Your task to perform on an android device: Go to ESPN.com Image 0: 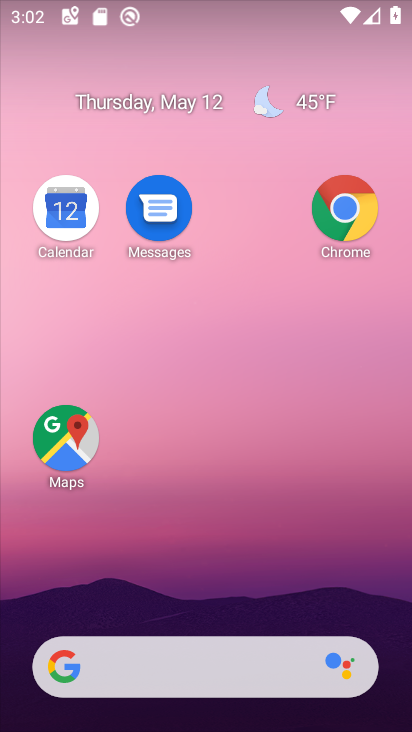
Step 0: drag from (176, 582) to (280, 69)
Your task to perform on an android device: Go to ESPN.com Image 1: 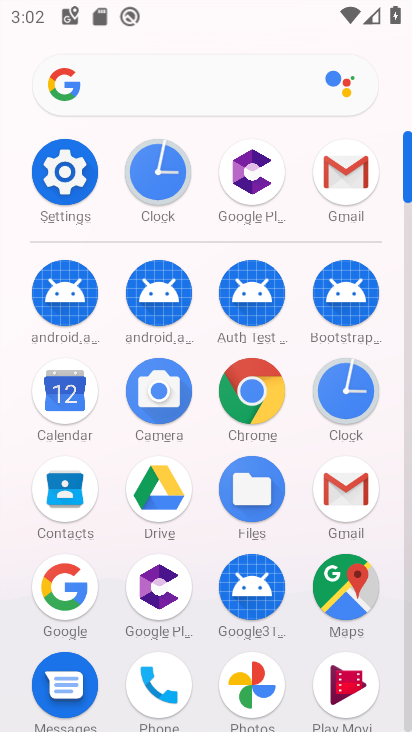
Step 1: click (182, 75)
Your task to perform on an android device: Go to ESPN.com Image 2: 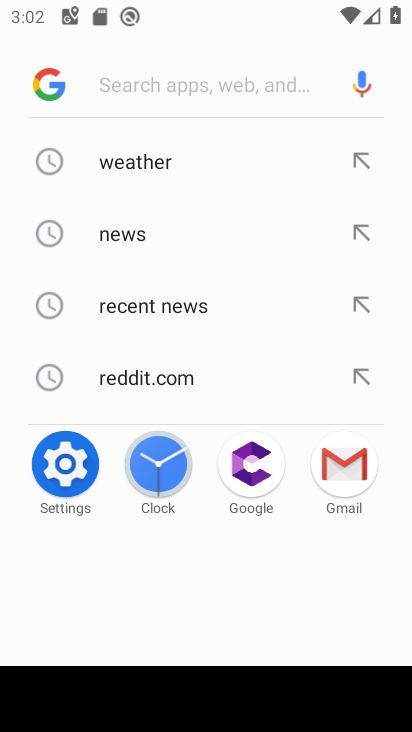
Step 2: type "espn.com"
Your task to perform on an android device: Go to ESPN.com Image 3: 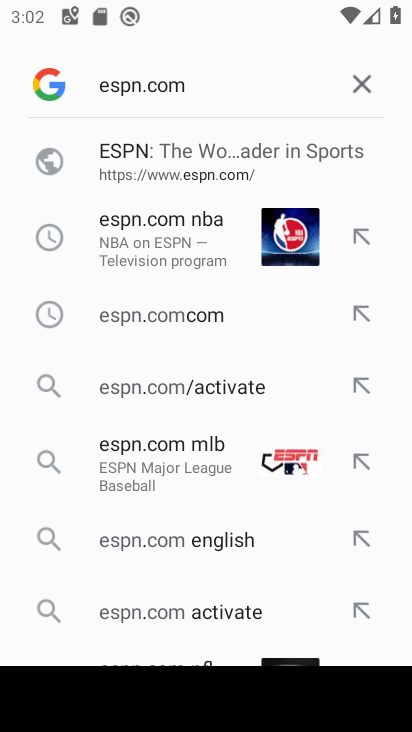
Step 3: click (165, 162)
Your task to perform on an android device: Go to ESPN.com Image 4: 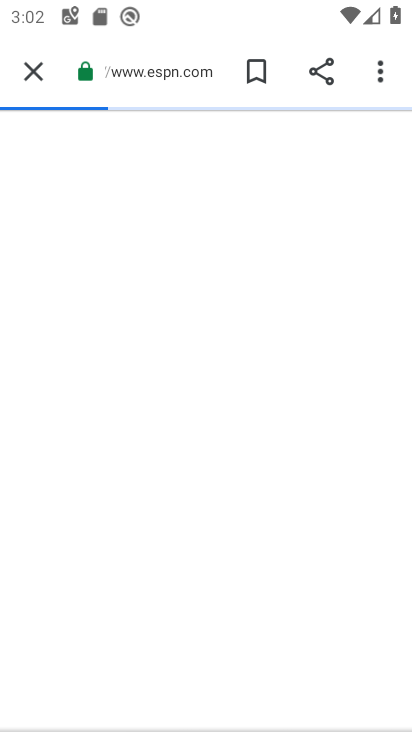
Step 4: task complete